Your task to perform on an android device: Go to sound settings Image 0: 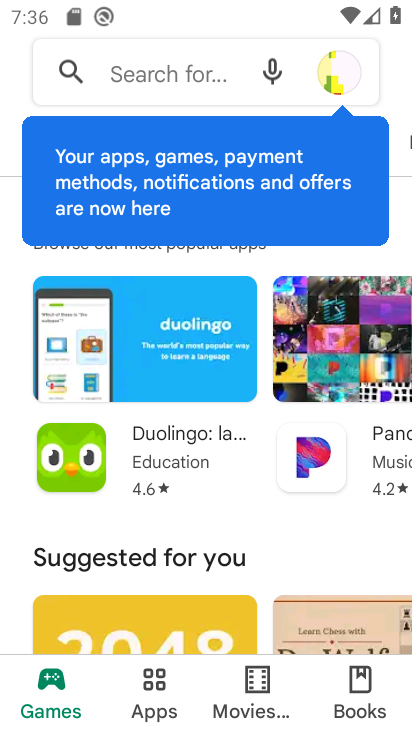
Step 0: press home button
Your task to perform on an android device: Go to sound settings Image 1: 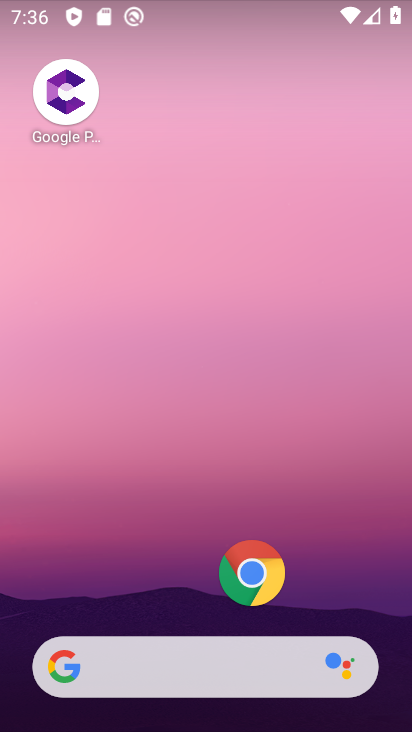
Step 1: drag from (196, 609) to (223, 39)
Your task to perform on an android device: Go to sound settings Image 2: 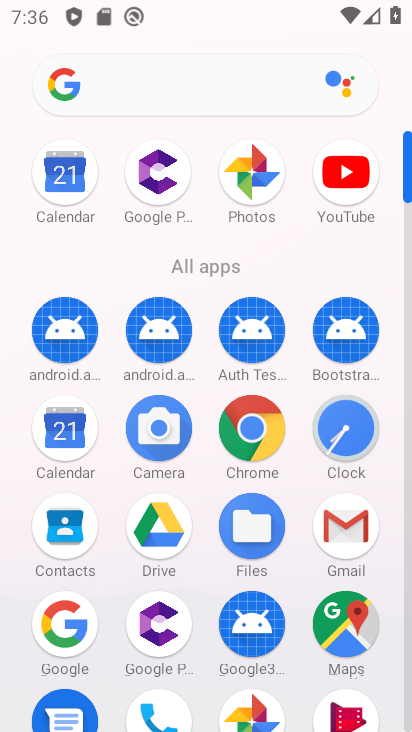
Step 2: drag from (203, 577) to (227, 71)
Your task to perform on an android device: Go to sound settings Image 3: 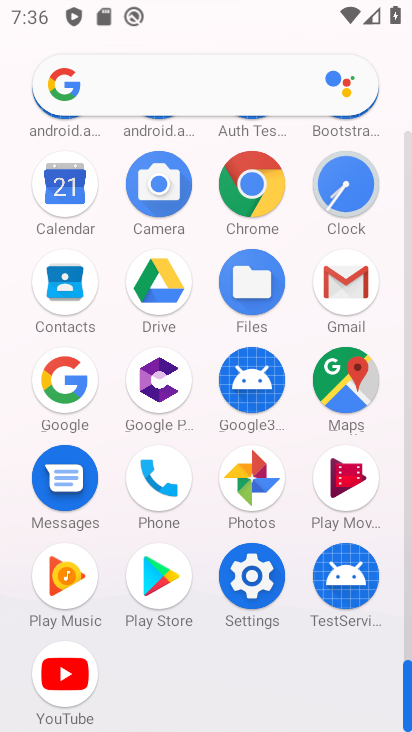
Step 3: click (254, 573)
Your task to perform on an android device: Go to sound settings Image 4: 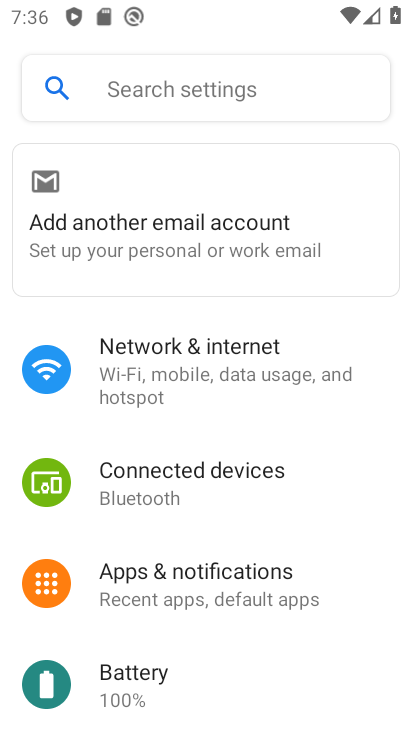
Step 4: drag from (207, 646) to (248, 152)
Your task to perform on an android device: Go to sound settings Image 5: 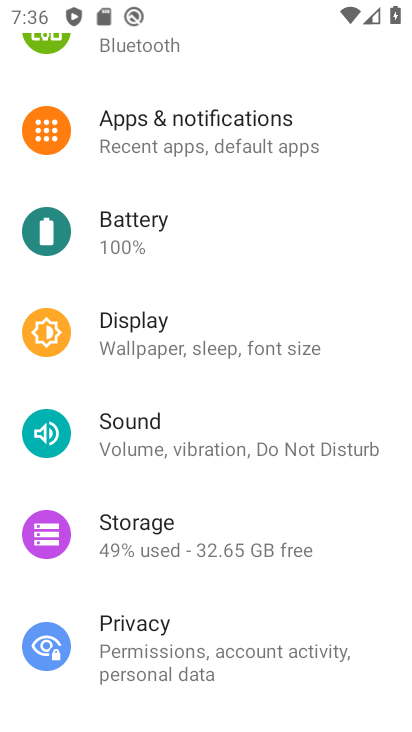
Step 5: click (168, 424)
Your task to perform on an android device: Go to sound settings Image 6: 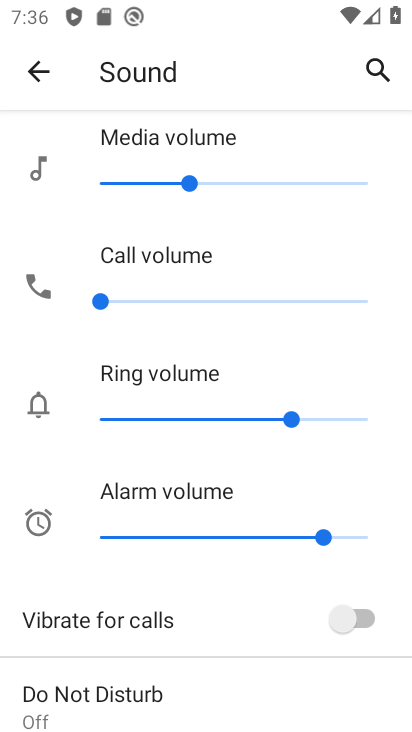
Step 6: drag from (196, 652) to (258, 152)
Your task to perform on an android device: Go to sound settings Image 7: 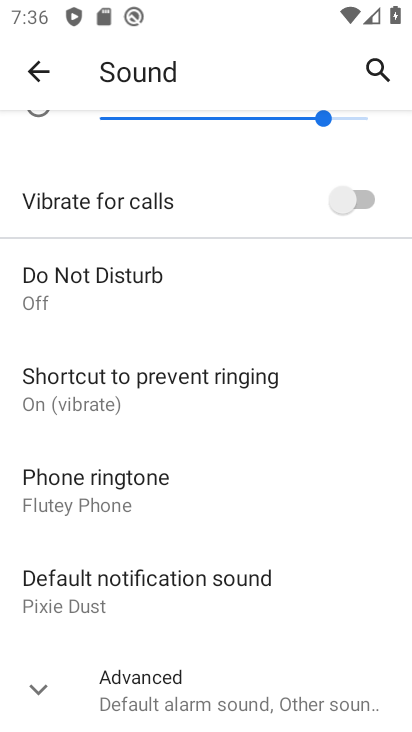
Step 7: click (42, 679)
Your task to perform on an android device: Go to sound settings Image 8: 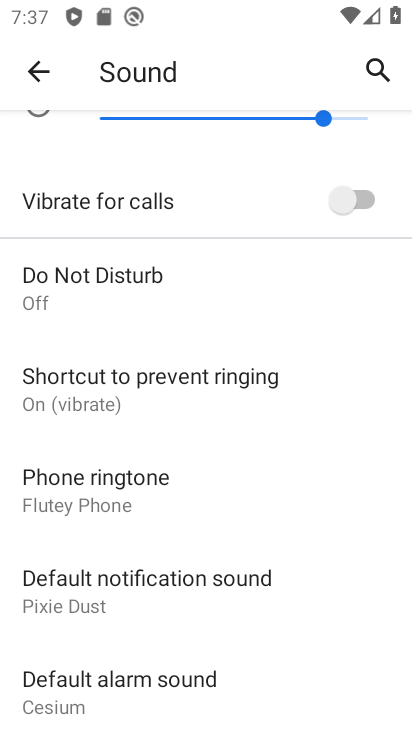
Step 8: task complete